Your task to perform on an android device: change the clock display to digital Image 0: 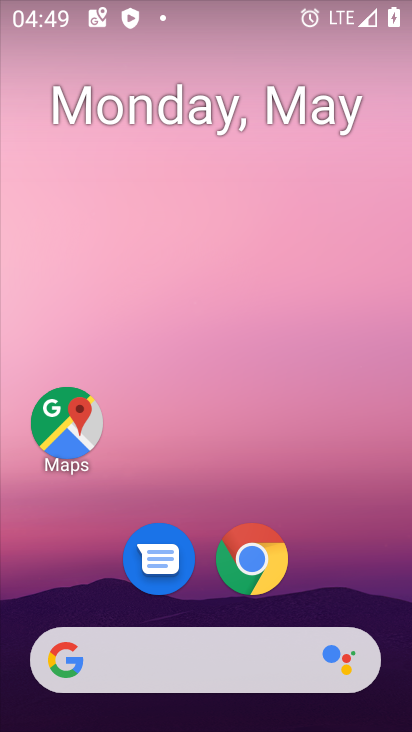
Step 0: drag from (251, 715) to (322, 23)
Your task to perform on an android device: change the clock display to digital Image 1: 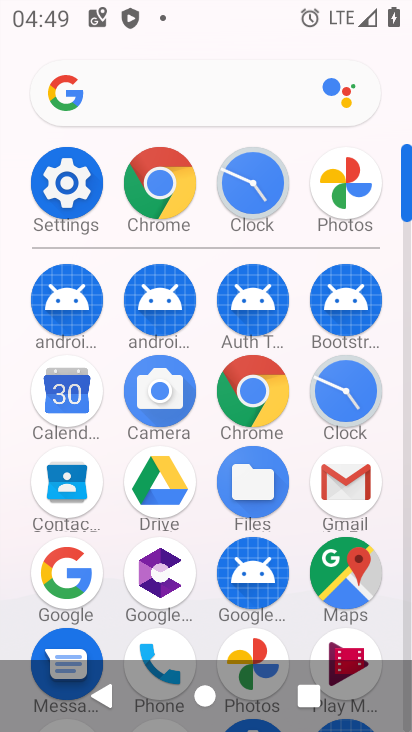
Step 1: click (68, 189)
Your task to perform on an android device: change the clock display to digital Image 2: 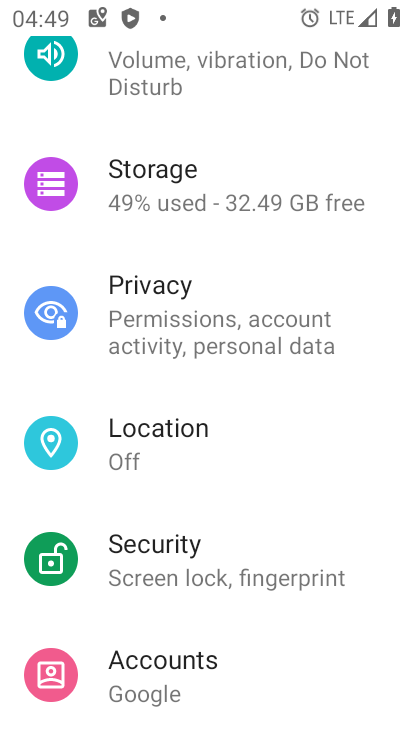
Step 2: drag from (339, 168) to (295, 723)
Your task to perform on an android device: change the clock display to digital Image 3: 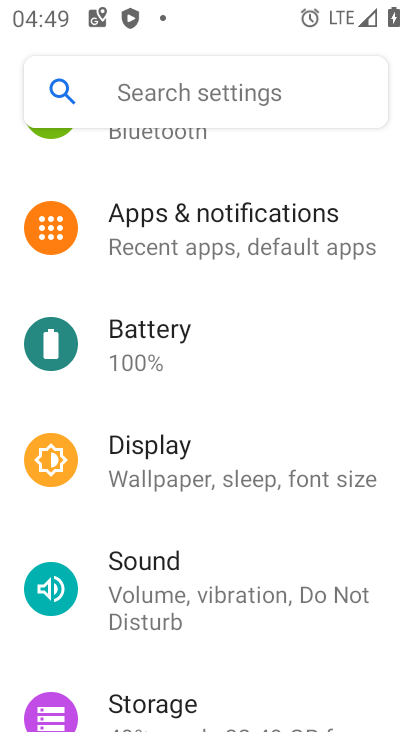
Step 3: drag from (256, 251) to (293, 701)
Your task to perform on an android device: change the clock display to digital Image 4: 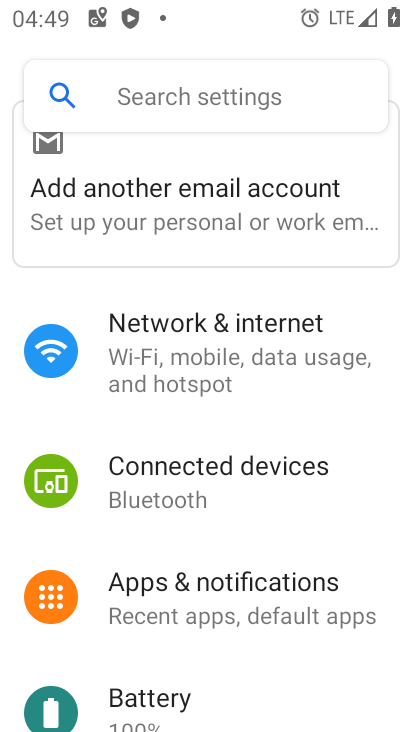
Step 4: press home button
Your task to perform on an android device: change the clock display to digital Image 5: 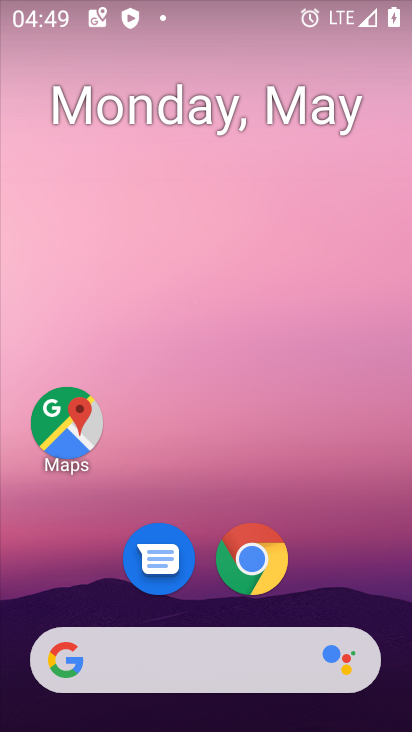
Step 5: drag from (136, 674) to (282, 1)
Your task to perform on an android device: change the clock display to digital Image 6: 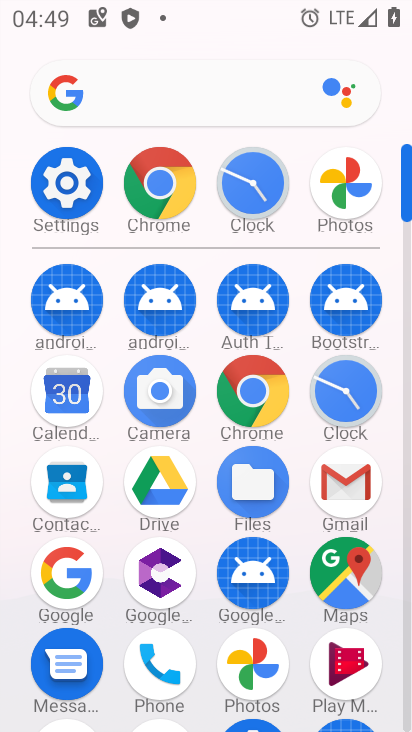
Step 6: click (338, 409)
Your task to perform on an android device: change the clock display to digital Image 7: 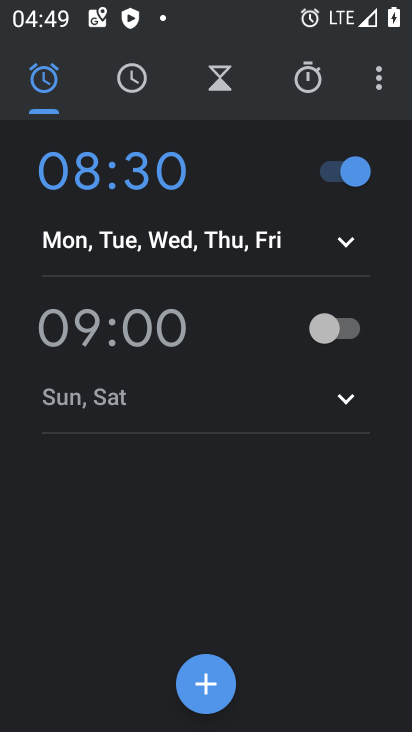
Step 7: click (363, 74)
Your task to perform on an android device: change the clock display to digital Image 8: 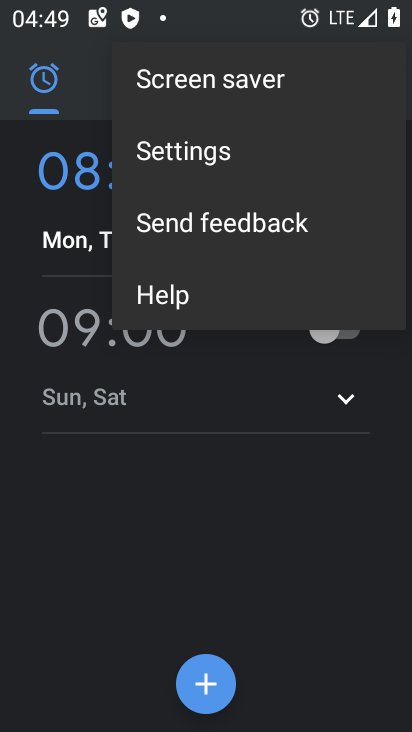
Step 8: click (216, 142)
Your task to perform on an android device: change the clock display to digital Image 9: 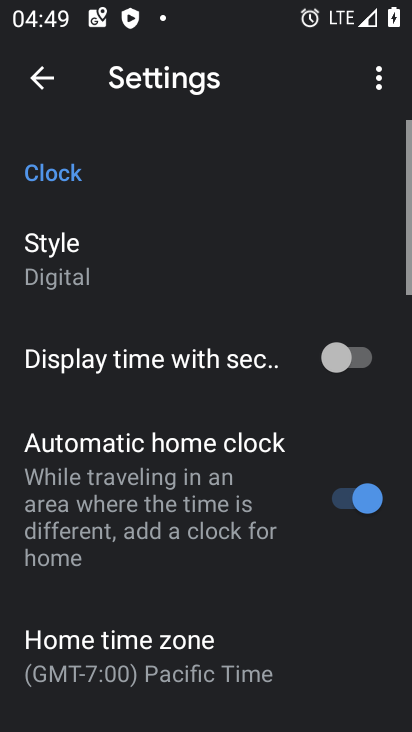
Step 9: click (202, 285)
Your task to perform on an android device: change the clock display to digital Image 10: 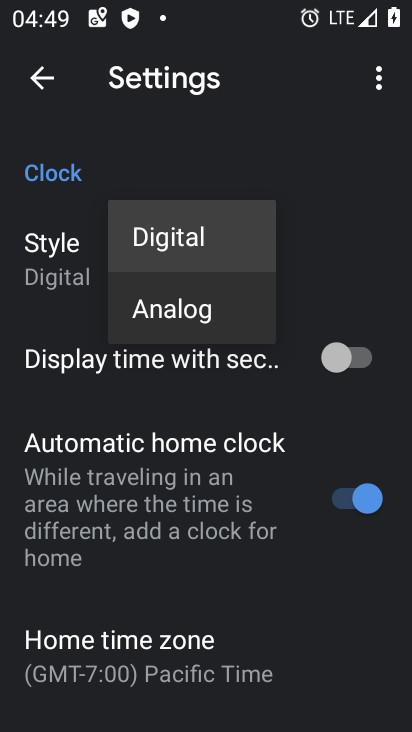
Step 10: click (172, 311)
Your task to perform on an android device: change the clock display to digital Image 11: 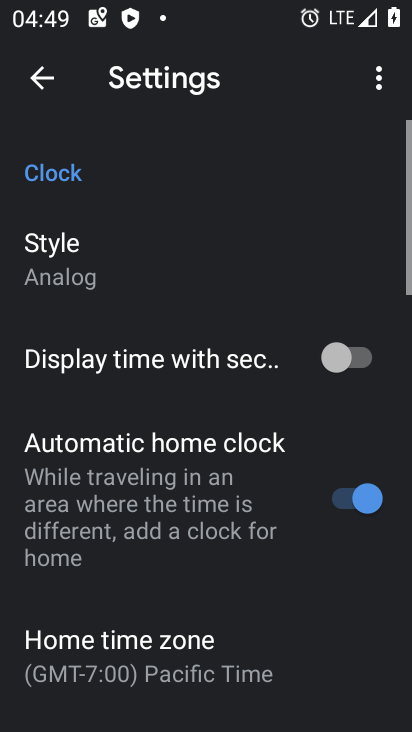
Step 11: task complete